Your task to perform on an android device: set default search engine in the chrome app Image 0: 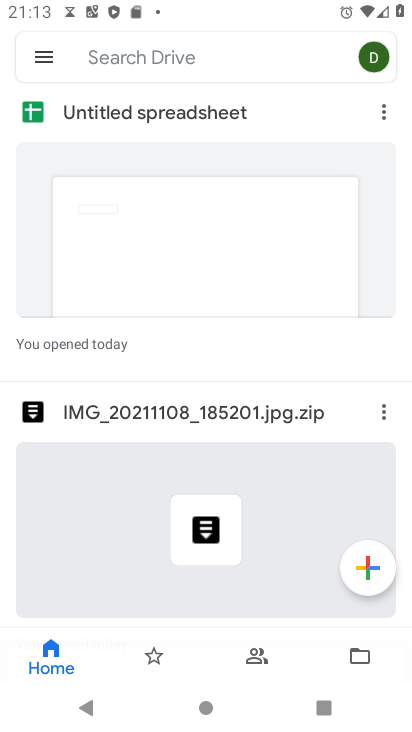
Step 0: press home button
Your task to perform on an android device: set default search engine in the chrome app Image 1: 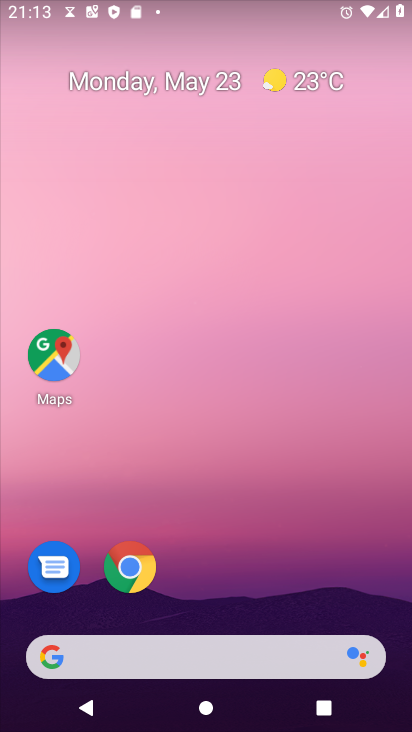
Step 1: drag from (252, 578) to (280, 304)
Your task to perform on an android device: set default search engine in the chrome app Image 2: 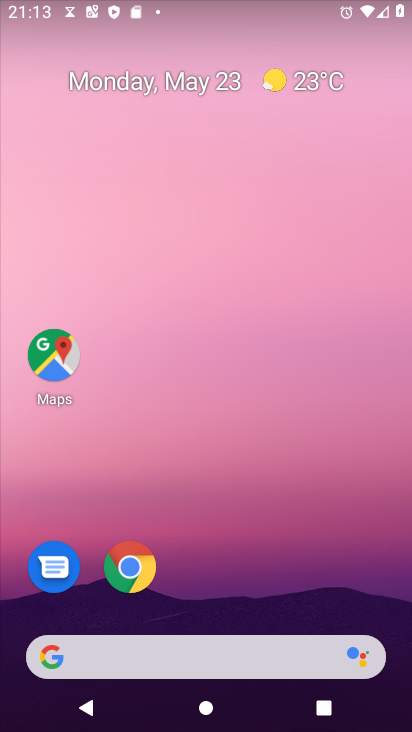
Step 2: drag from (216, 606) to (267, 246)
Your task to perform on an android device: set default search engine in the chrome app Image 3: 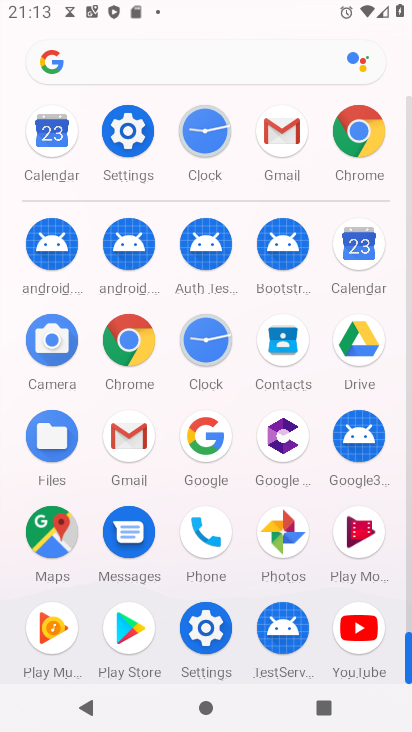
Step 3: click (363, 130)
Your task to perform on an android device: set default search engine in the chrome app Image 4: 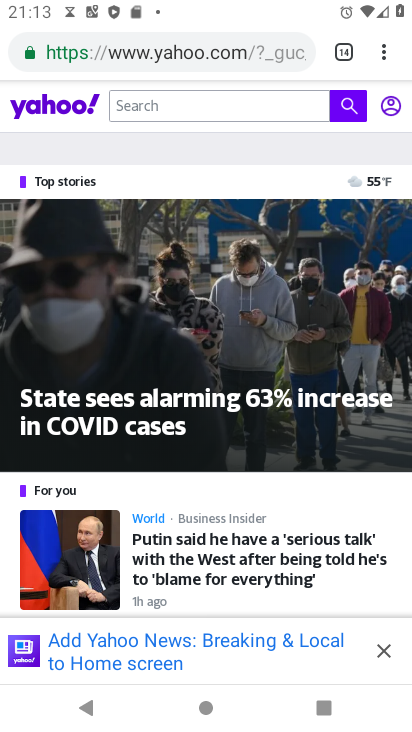
Step 4: click (384, 53)
Your task to perform on an android device: set default search engine in the chrome app Image 5: 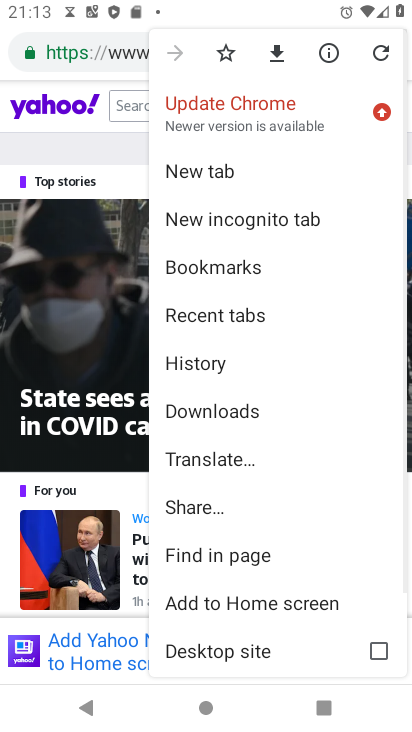
Step 5: drag from (232, 557) to (284, 209)
Your task to perform on an android device: set default search engine in the chrome app Image 6: 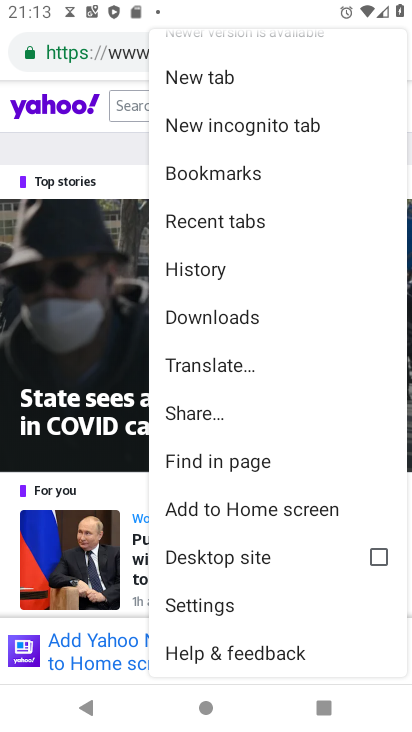
Step 6: click (215, 602)
Your task to perform on an android device: set default search engine in the chrome app Image 7: 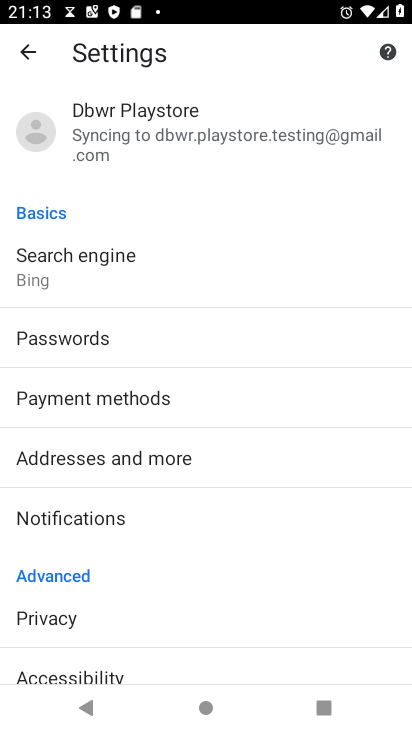
Step 7: click (102, 257)
Your task to perform on an android device: set default search engine in the chrome app Image 8: 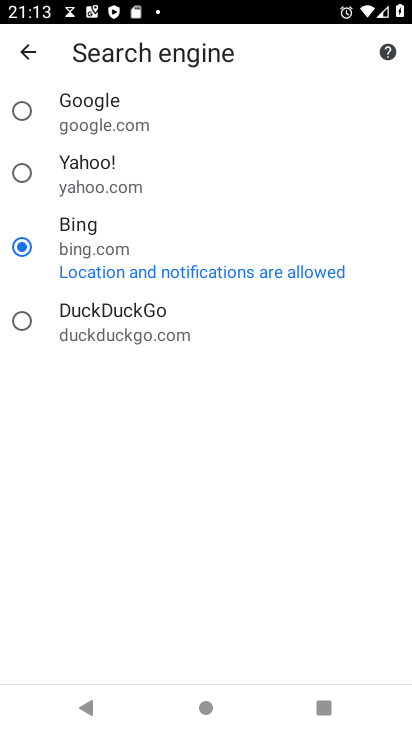
Step 8: click (83, 180)
Your task to perform on an android device: set default search engine in the chrome app Image 9: 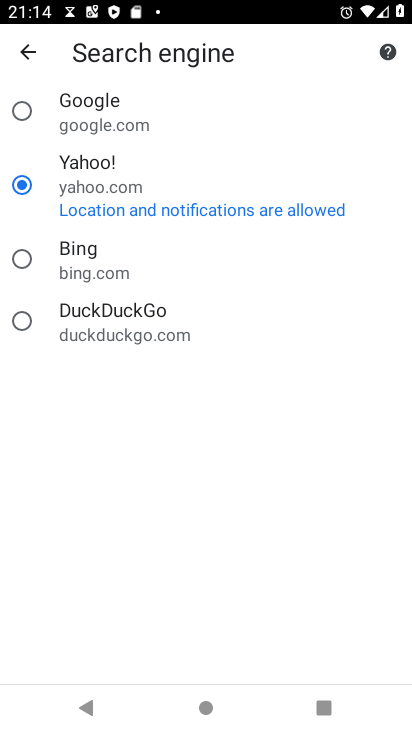
Step 9: task complete